Your task to perform on an android device: empty trash in google photos Image 0: 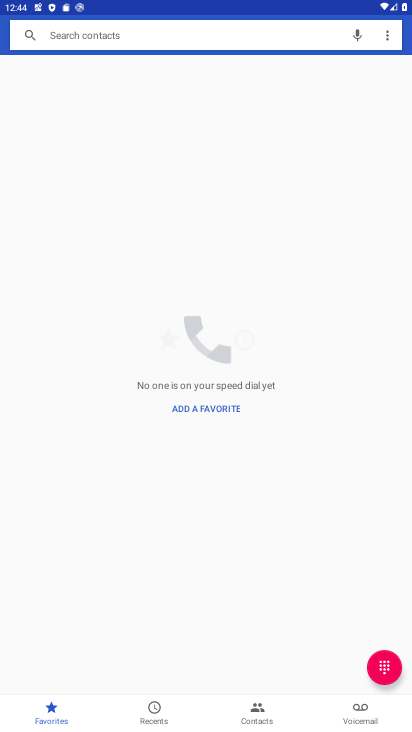
Step 0: press home button
Your task to perform on an android device: empty trash in google photos Image 1: 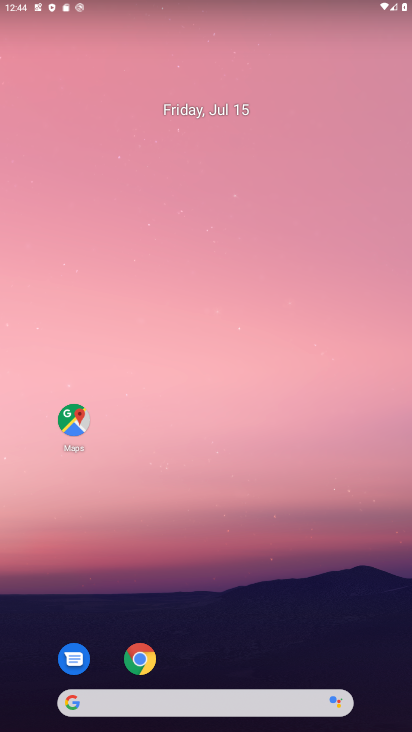
Step 1: drag from (210, 652) to (201, 269)
Your task to perform on an android device: empty trash in google photos Image 2: 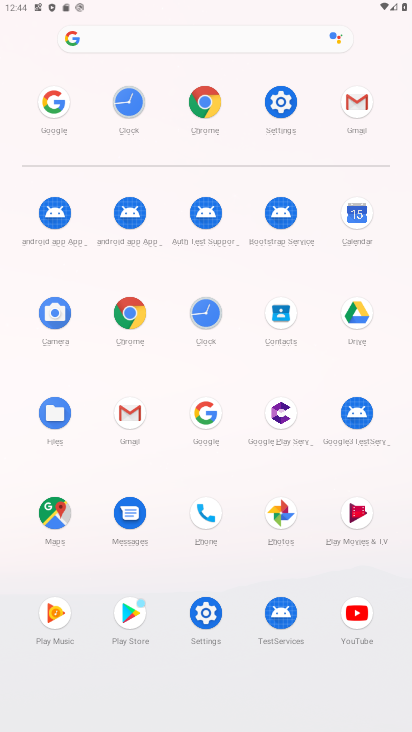
Step 2: click (278, 495)
Your task to perform on an android device: empty trash in google photos Image 3: 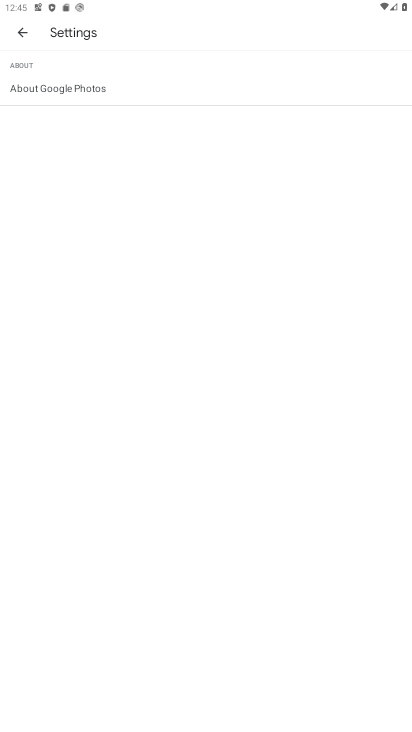
Step 3: click (28, 34)
Your task to perform on an android device: empty trash in google photos Image 4: 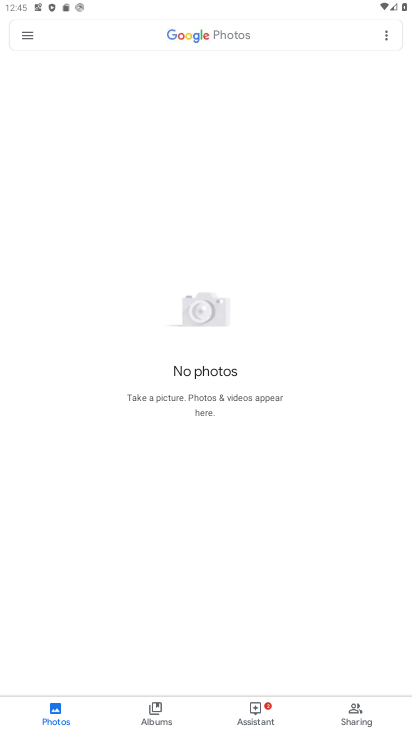
Step 4: click (28, 34)
Your task to perform on an android device: empty trash in google photos Image 5: 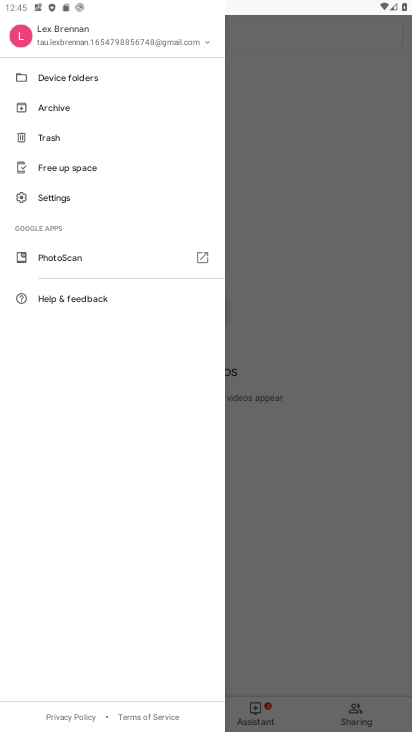
Step 5: click (73, 142)
Your task to perform on an android device: empty trash in google photos Image 6: 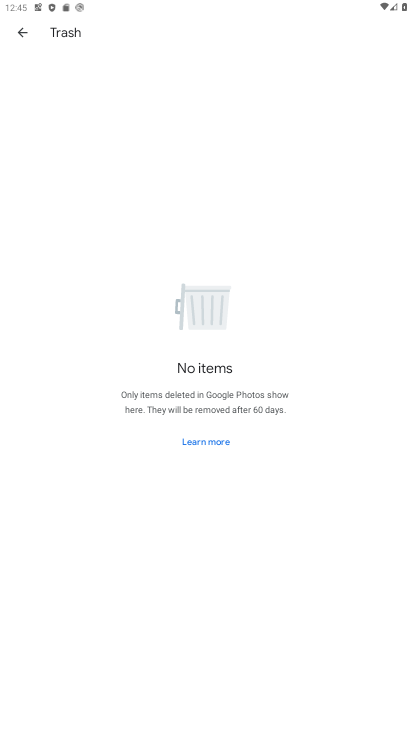
Step 6: task complete